Your task to perform on an android device: Go to Google Image 0: 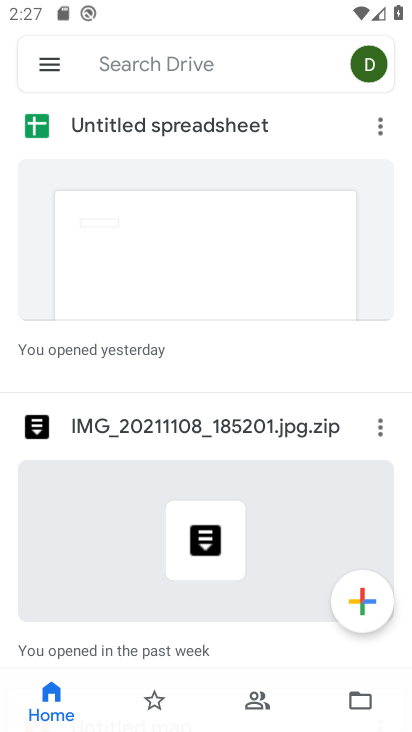
Step 0: press home button
Your task to perform on an android device: Go to Google Image 1: 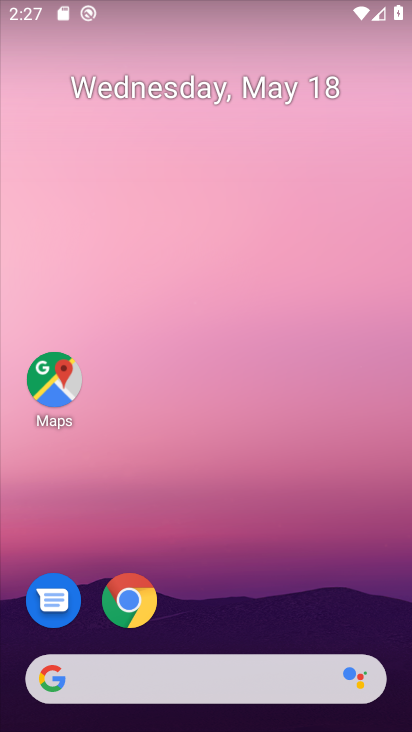
Step 1: click (182, 686)
Your task to perform on an android device: Go to Google Image 2: 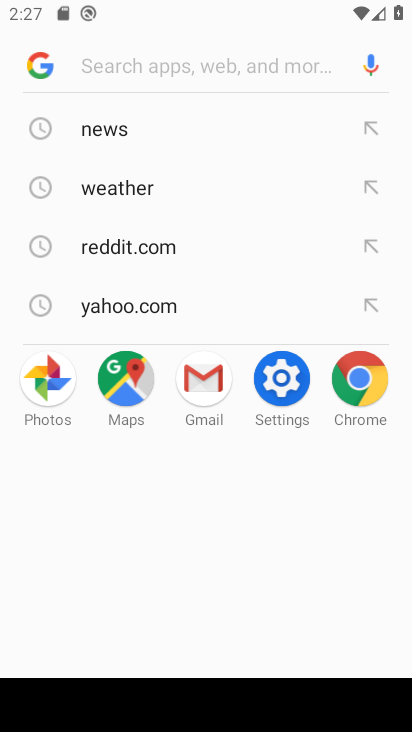
Step 2: click (36, 72)
Your task to perform on an android device: Go to Google Image 3: 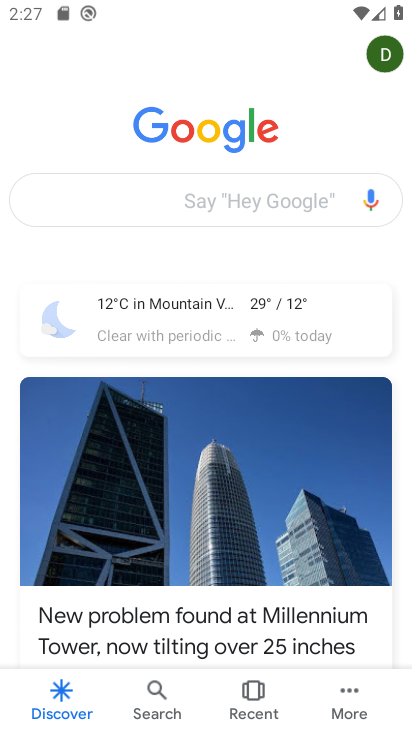
Step 3: task complete